Your task to perform on an android device: turn on airplane mode Image 0: 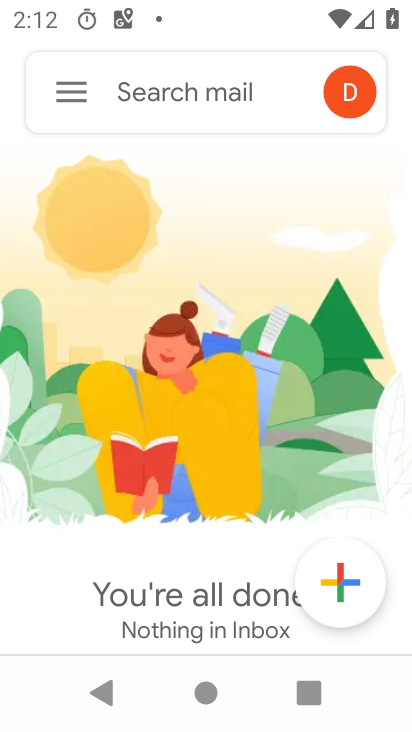
Step 0: press home button
Your task to perform on an android device: turn on airplane mode Image 1: 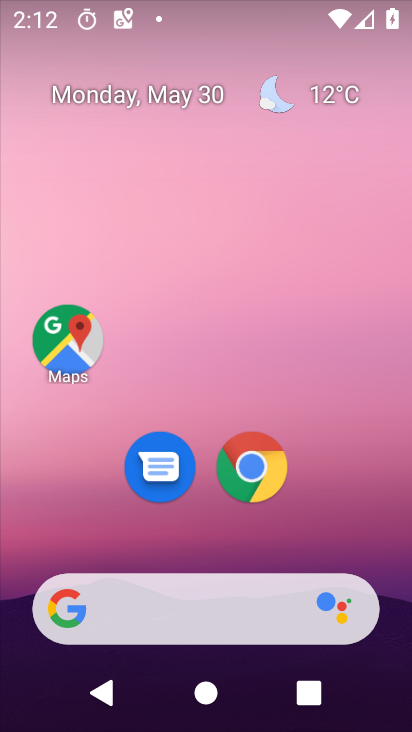
Step 1: drag from (387, 665) to (280, 46)
Your task to perform on an android device: turn on airplane mode Image 2: 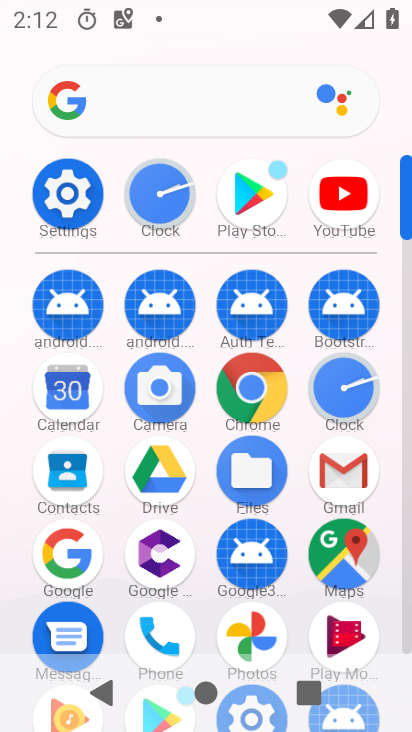
Step 2: click (52, 205)
Your task to perform on an android device: turn on airplane mode Image 3: 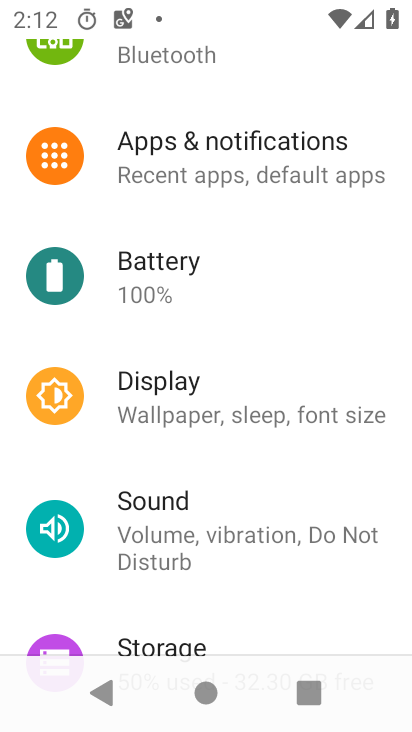
Step 3: drag from (331, 110) to (319, 578)
Your task to perform on an android device: turn on airplane mode Image 4: 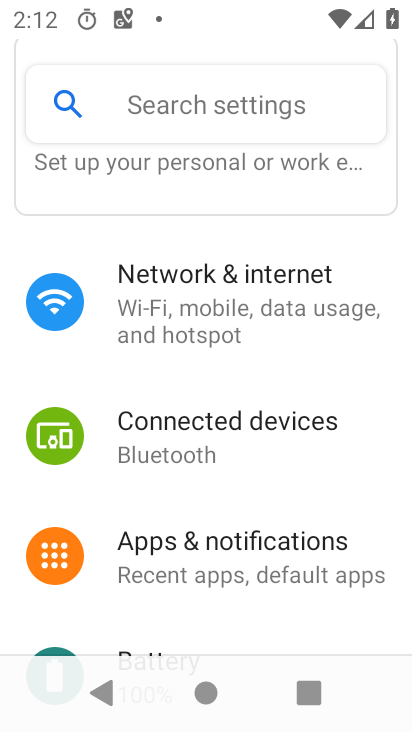
Step 4: click (229, 305)
Your task to perform on an android device: turn on airplane mode Image 5: 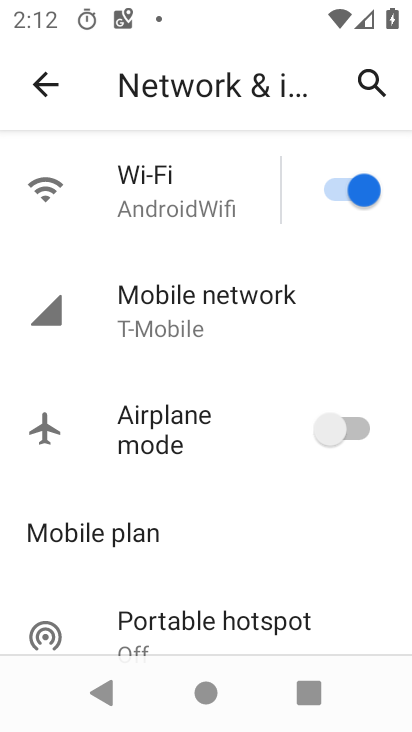
Step 5: click (357, 428)
Your task to perform on an android device: turn on airplane mode Image 6: 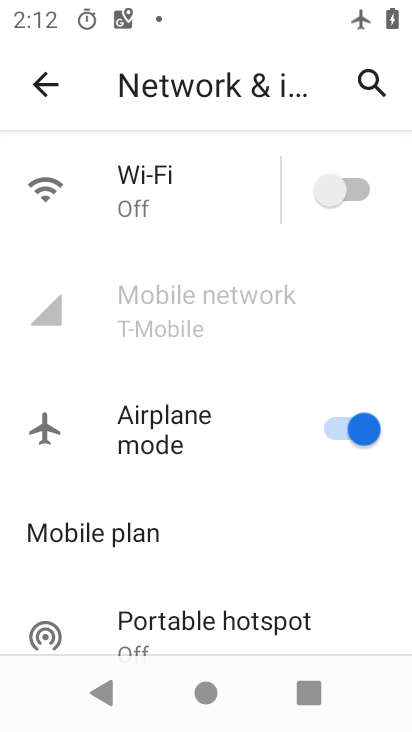
Step 6: task complete